Your task to perform on an android device: set an alarm Image 0: 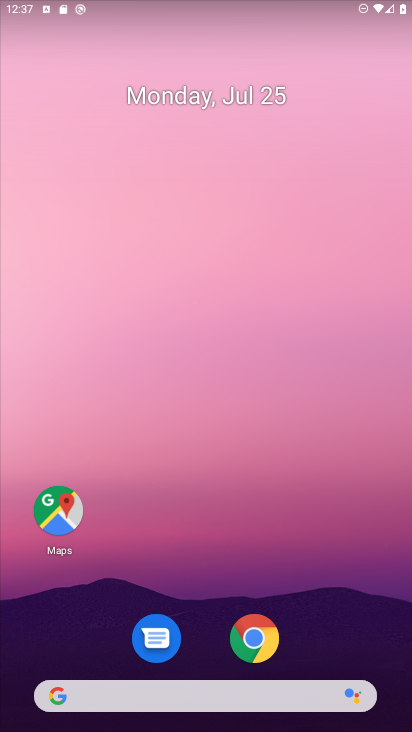
Step 0: drag from (203, 664) to (179, 137)
Your task to perform on an android device: set an alarm Image 1: 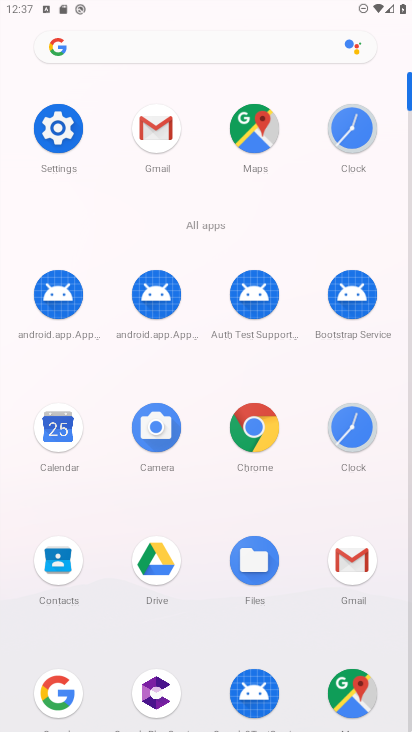
Step 1: click (344, 99)
Your task to perform on an android device: set an alarm Image 2: 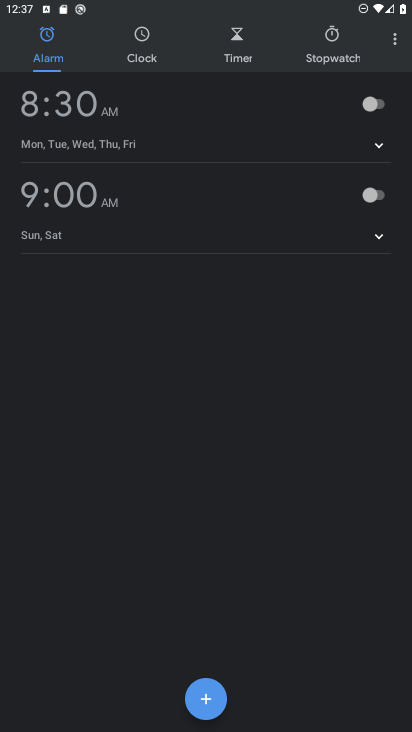
Step 2: click (387, 197)
Your task to perform on an android device: set an alarm Image 3: 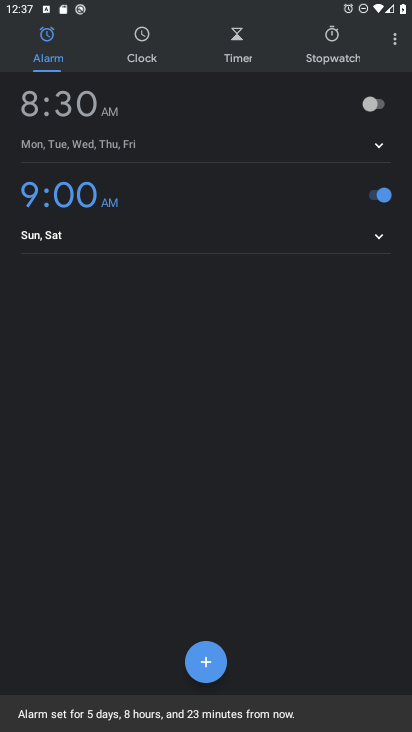
Step 3: task complete